Your task to perform on an android device: Go to Yahoo.com Image 0: 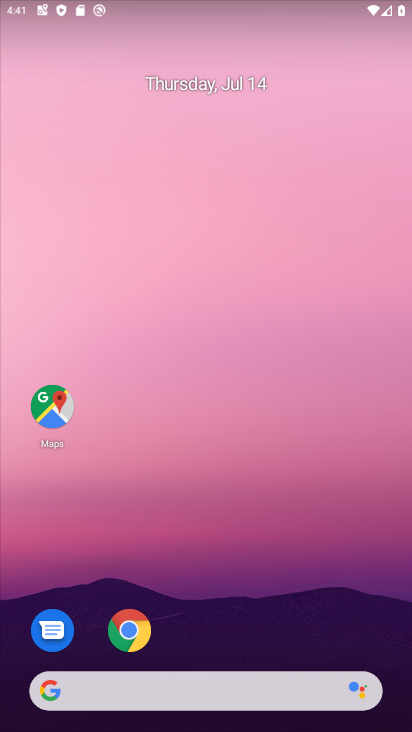
Step 0: drag from (211, 650) to (230, 108)
Your task to perform on an android device: Go to Yahoo.com Image 1: 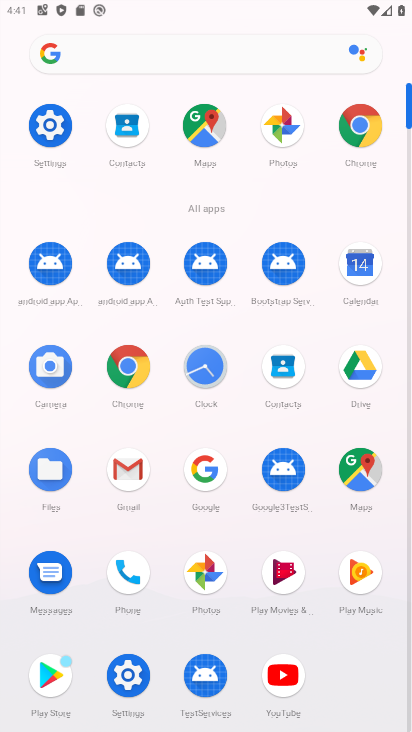
Step 1: click (352, 128)
Your task to perform on an android device: Go to Yahoo.com Image 2: 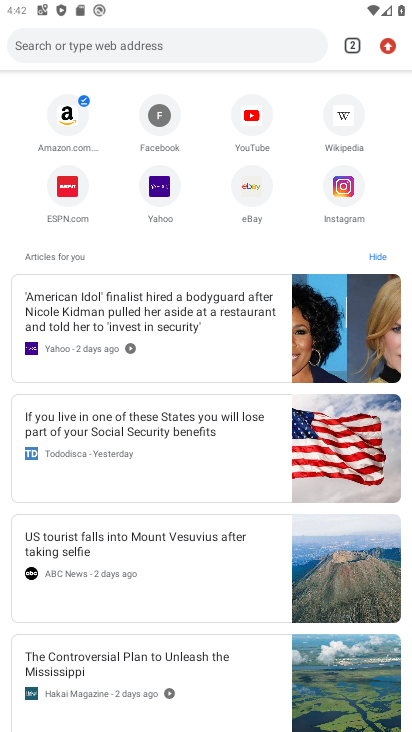
Step 2: click (167, 182)
Your task to perform on an android device: Go to Yahoo.com Image 3: 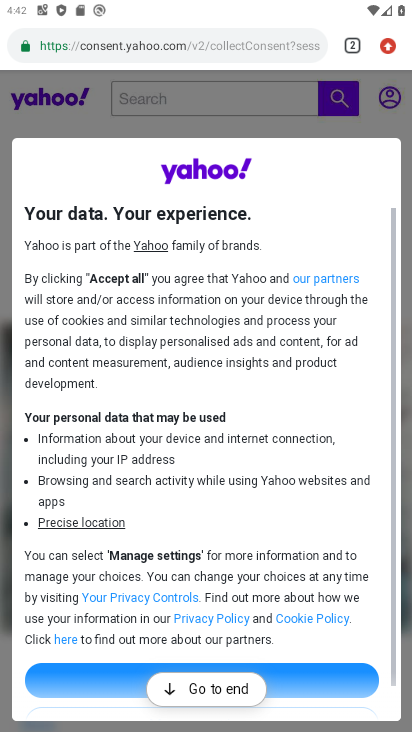
Step 3: task complete